Your task to perform on an android device: toggle wifi Image 0: 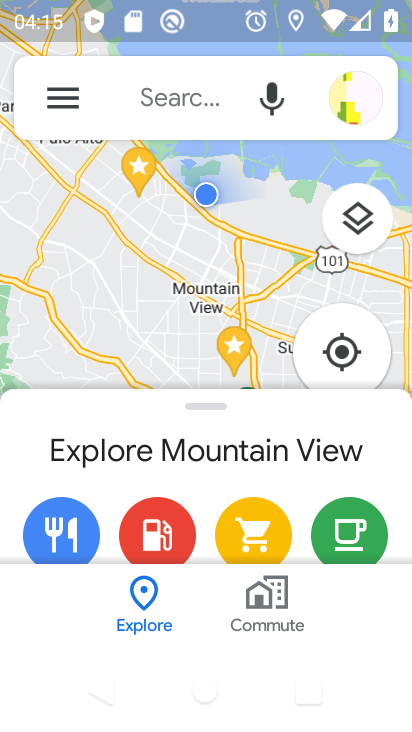
Step 0: press home button
Your task to perform on an android device: toggle wifi Image 1: 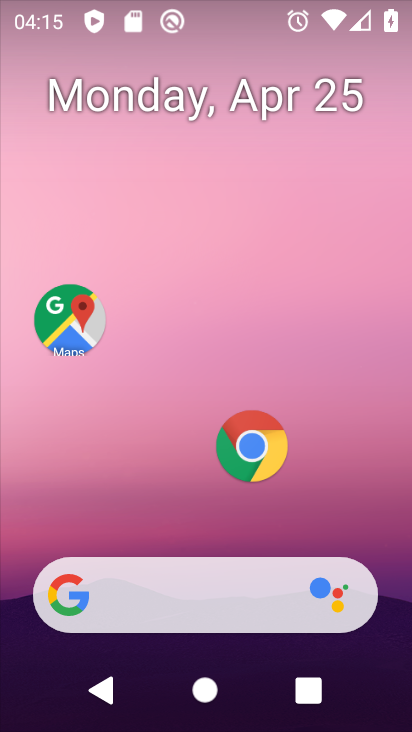
Step 1: drag from (212, 16) to (249, 536)
Your task to perform on an android device: toggle wifi Image 2: 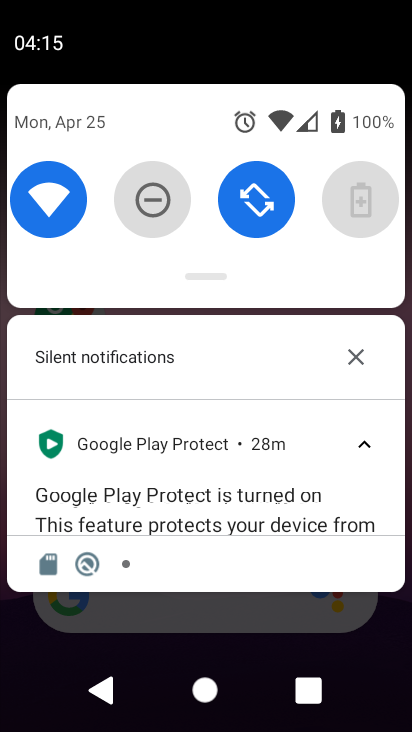
Step 2: click (52, 208)
Your task to perform on an android device: toggle wifi Image 3: 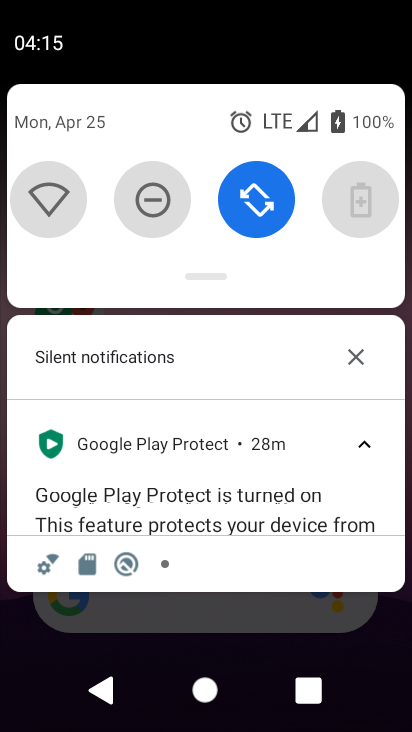
Step 3: click (52, 208)
Your task to perform on an android device: toggle wifi Image 4: 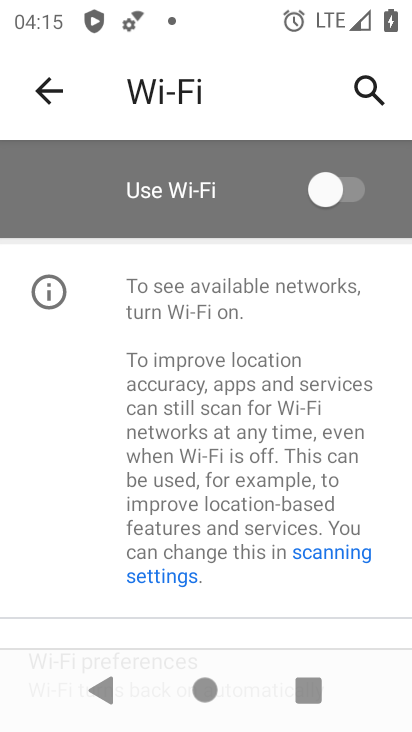
Step 4: click (351, 193)
Your task to perform on an android device: toggle wifi Image 5: 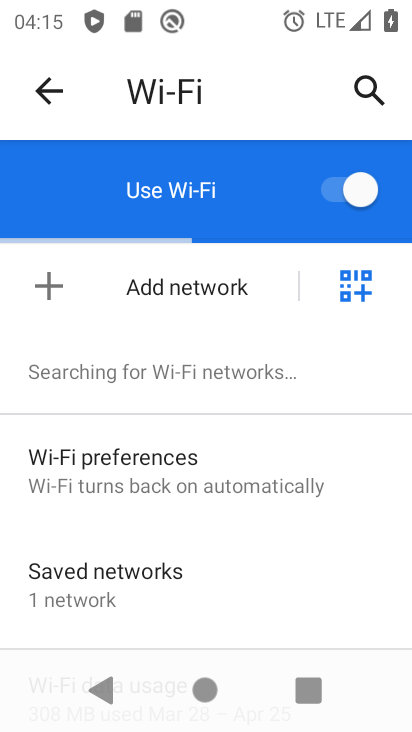
Step 5: click (351, 193)
Your task to perform on an android device: toggle wifi Image 6: 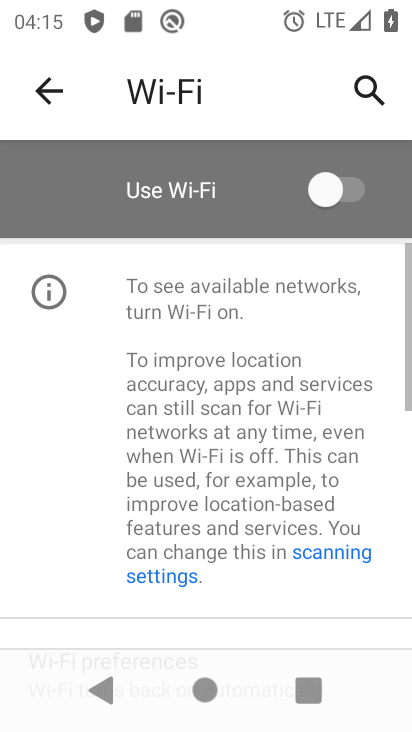
Step 6: click (351, 193)
Your task to perform on an android device: toggle wifi Image 7: 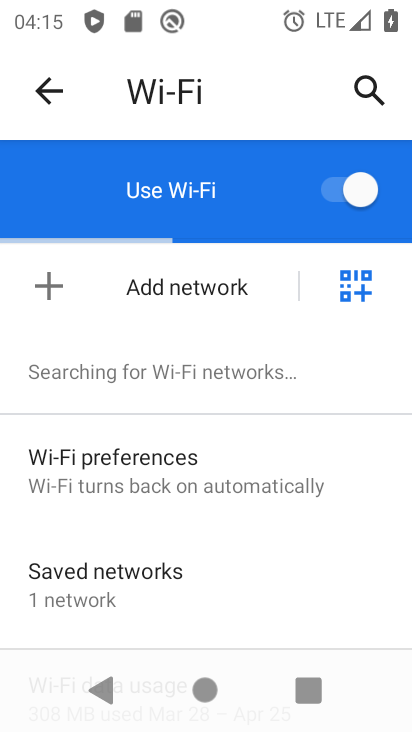
Step 7: task complete